Your task to perform on an android device: Show me popular videos on Youtube Image 0: 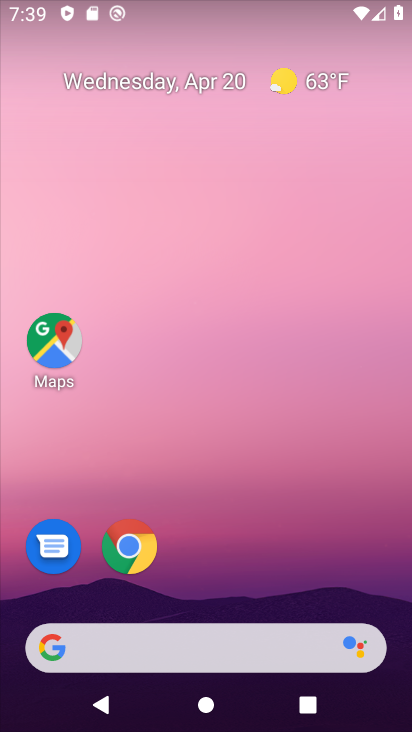
Step 0: click (328, 558)
Your task to perform on an android device: Show me popular videos on Youtube Image 1: 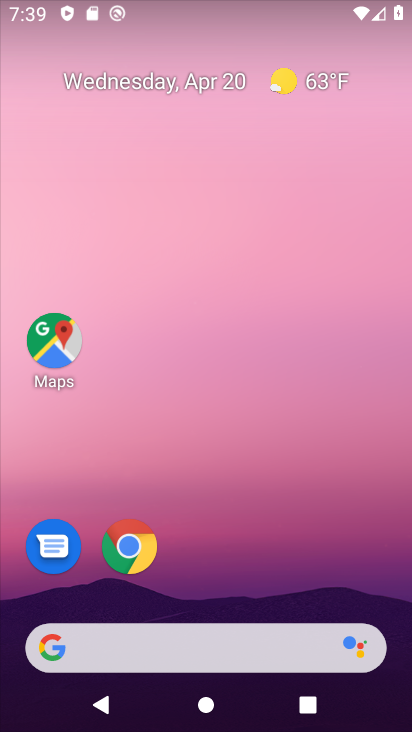
Step 1: drag from (249, 573) to (317, 108)
Your task to perform on an android device: Show me popular videos on Youtube Image 2: 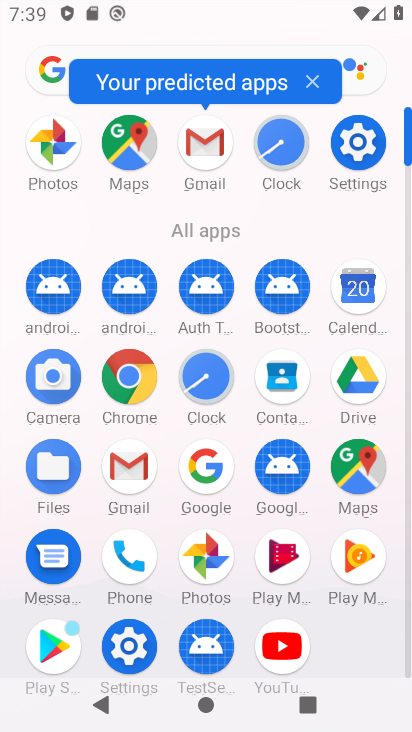
Step 2: click (291, 650)
Your task to perform on an android device: Show me popular videos on Youtube Image 3: 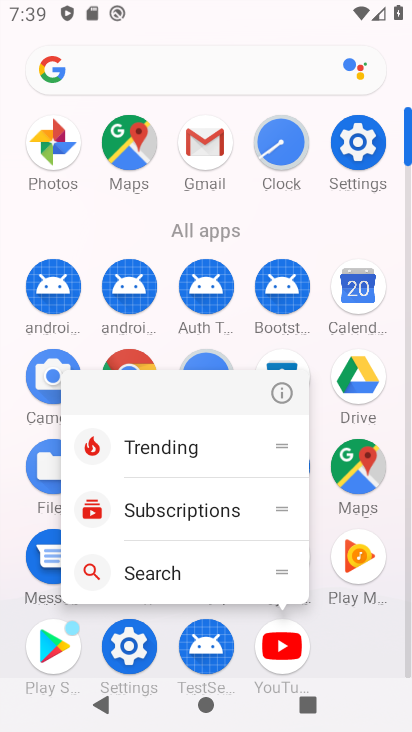
Step 3: click (291, 648)
Your task to perform on an android device: Show me popular videos on Youtube Image 4: 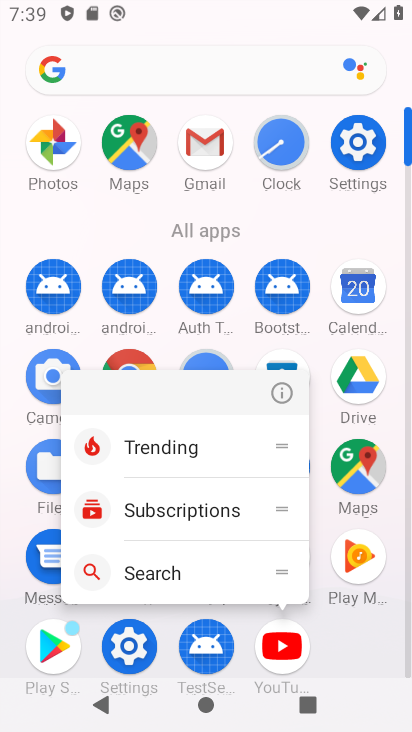
Step 4: click (291, 648)
Your task to perform on an android device: Show me popular videos on Youtube Image 5: 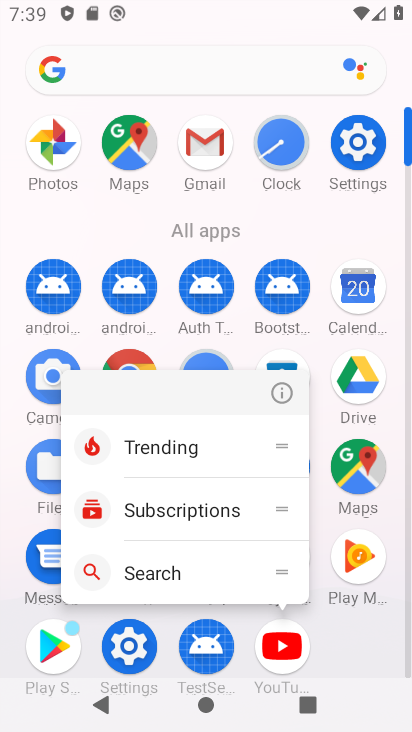
Step 5: click (291, 648)
Your task to perform on an android device: Show me popular videos on Youtube Image 6: 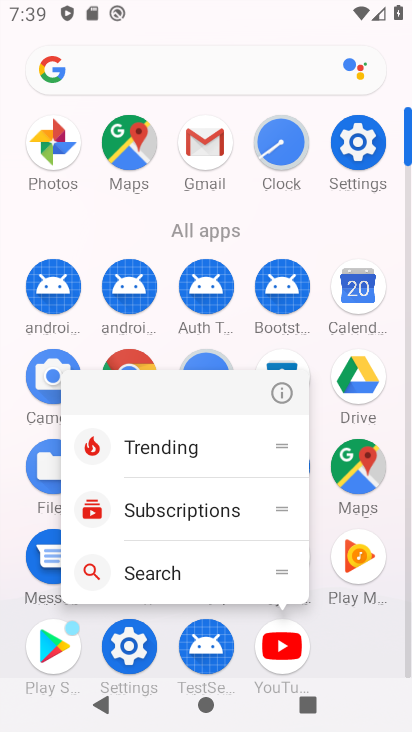
Step 6: click (291, 648)
Your task to perform on an android device: Show me popular videos on Youtube Image 7: 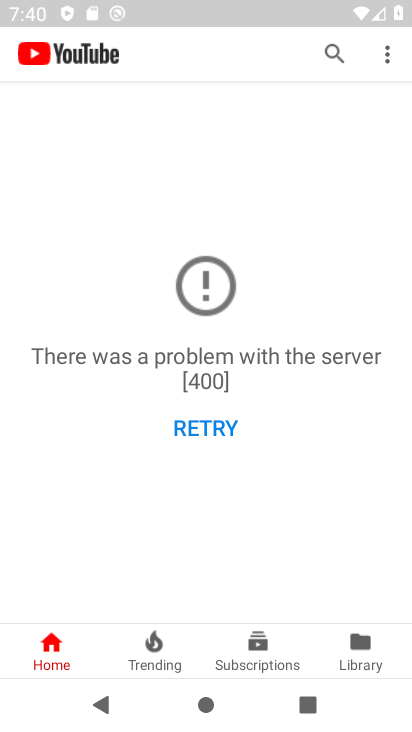
Step 7: click (388, 51)
Your task to perform on an android device: Show me popular videos on Youtube Image 8: 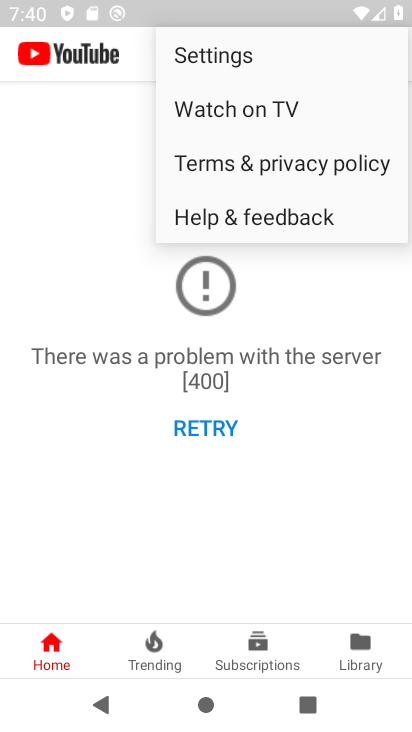
Step 8: click (215, 423)
Your task to perform on an android device: Show me popular videos on Youtube Image 9: 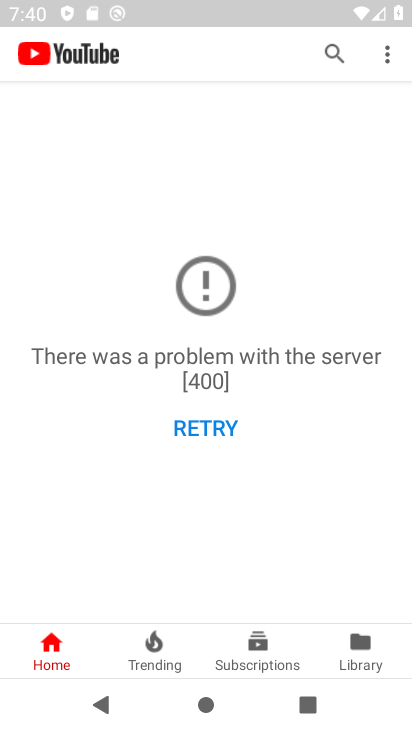
Step 9: task complete